Your task to perform on an android device: See recent photos Image 0: 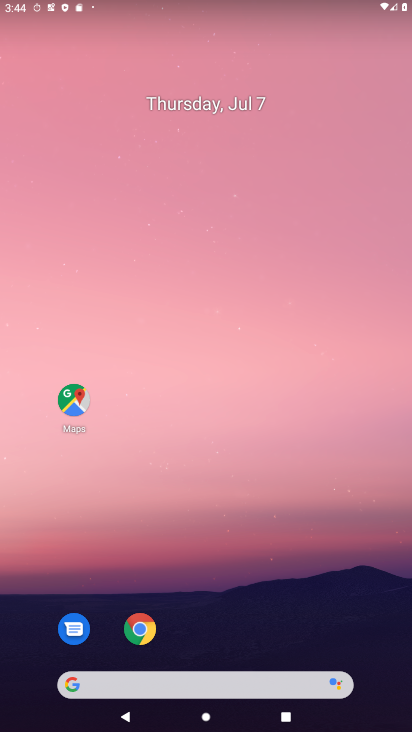
Step 0: drag from (193, 545) to (218, 146)
Your task to perform on an android device: See recent photos Image 1: 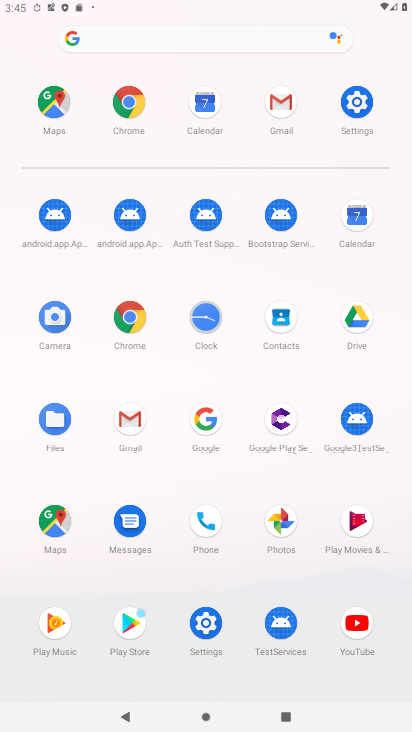
Step 1: click (281, 517)
Your task to perform on an android device: See recent photos Image 2: 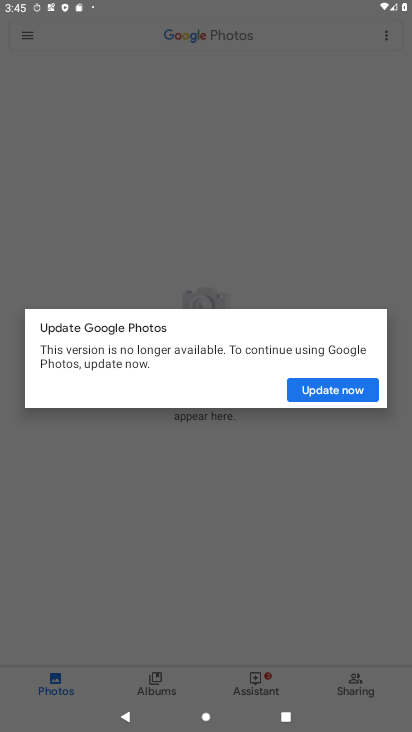
Step 2: click (324, 391)
Your task to perform on an android device: See recent photos Image 3: 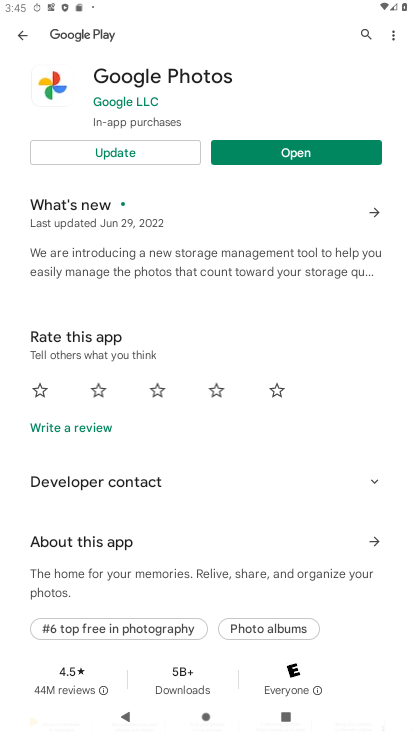
Step 3: click (300, 161)
Your task to perform on an android device: See recent photos Image 4: 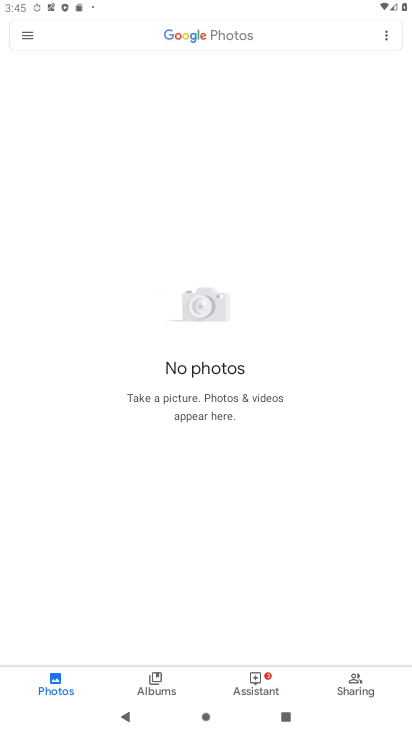
Step 4: task complete